Your task to perform on an android device: Go to Maps Image 0: 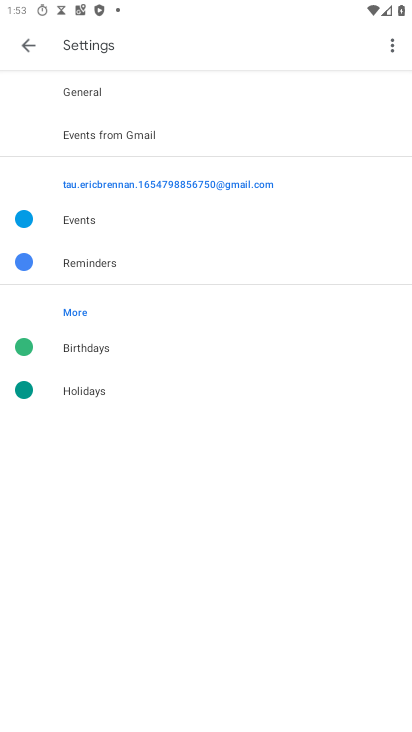
Step 0: press home button
Your task to perform on an android device: Go to Maps Image 1: 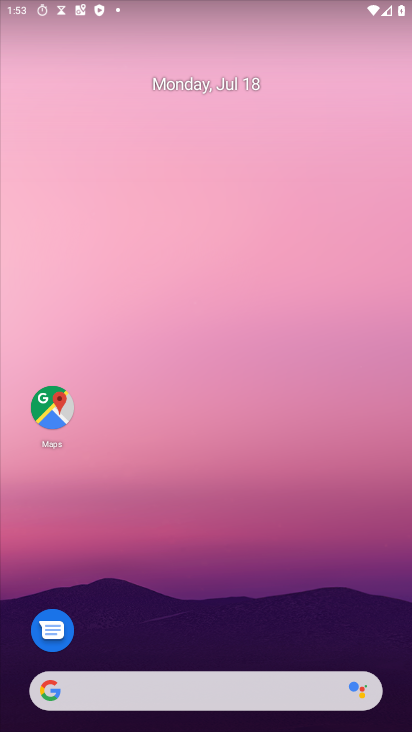
Step 1: drag from (262, 548) to (214, 5)
Your task to perform on an android device: Go to Maps Image 2: 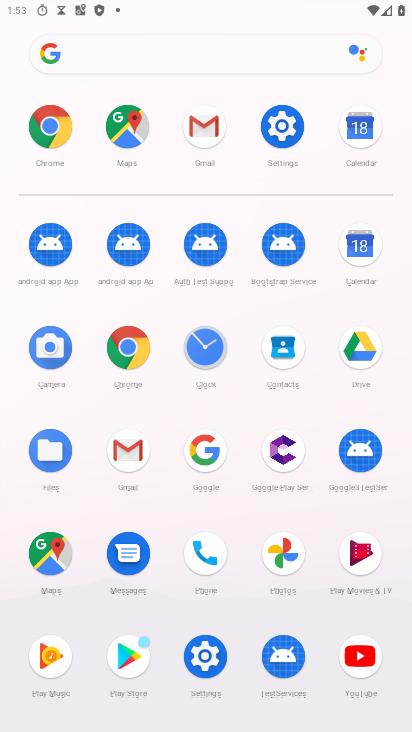
Step 2: click (36, 556)
Your task to perform on an android device: Go to Maps Image 3: 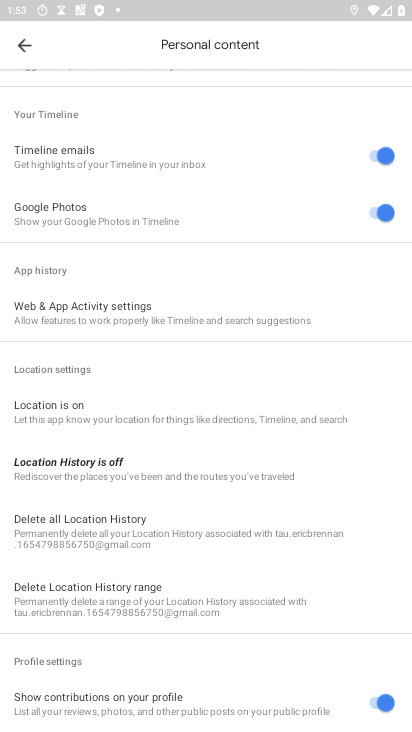
Step 3: task complete